Your task to perform on an android device: turn on sleep mode Image 0: 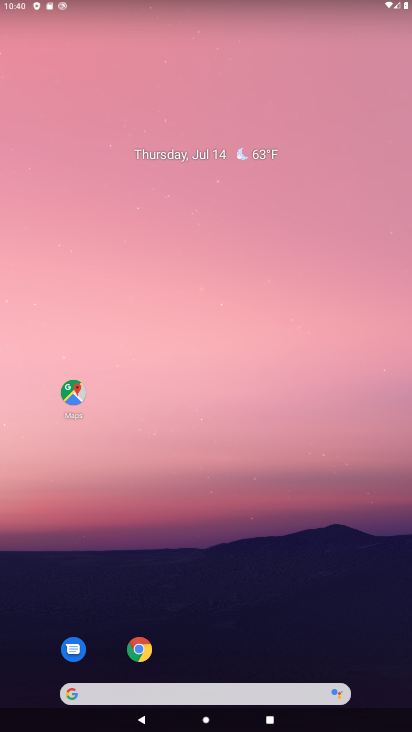
Step 0: drag from (223, 526) to (136, 0)
Your task to perform on an android device: turn on sleep mode Image 1: 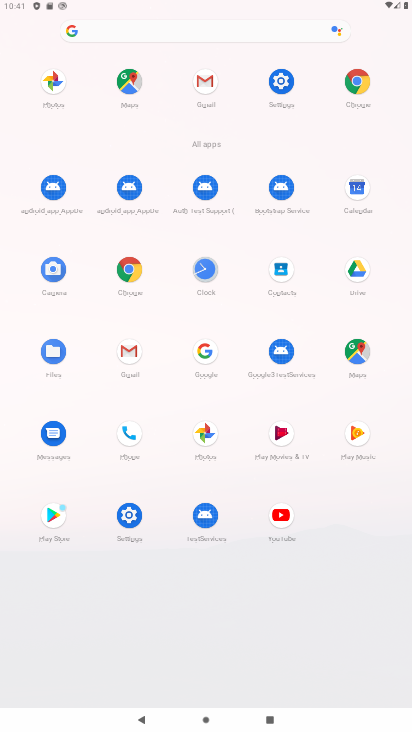
Step 1: click (283, 78)
Your task to perform on an android device: turn on sleep mode Image 2: 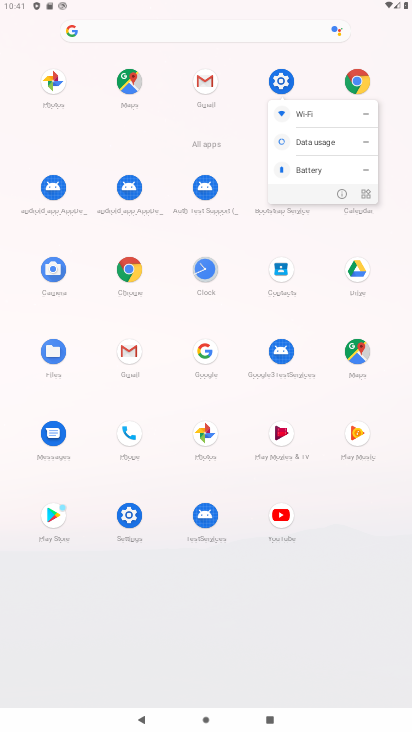
Step 2: click (270, 76)
Your task to perform on an android device: turn on sleep mode Image 3: 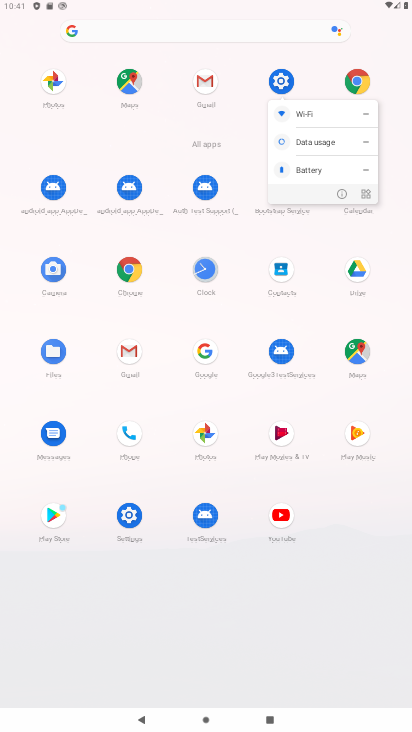
Step 3: click (272, 80)
Your task to perform on an android device: turn on sleep mode Image 4: 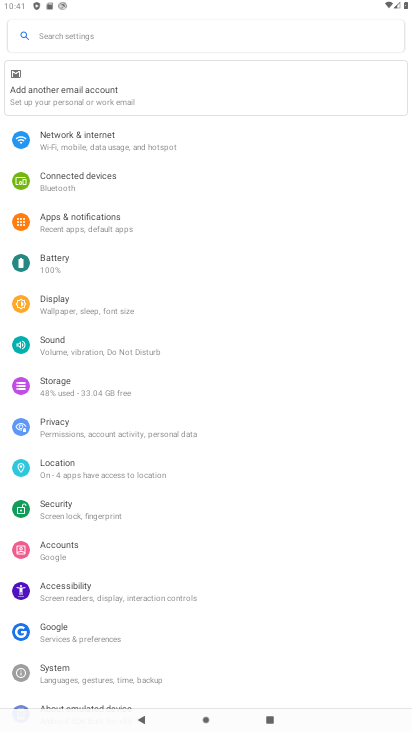
Step 4: click (58, 308)
Your task to perform on an android device: turn on sleep mode Image 5: 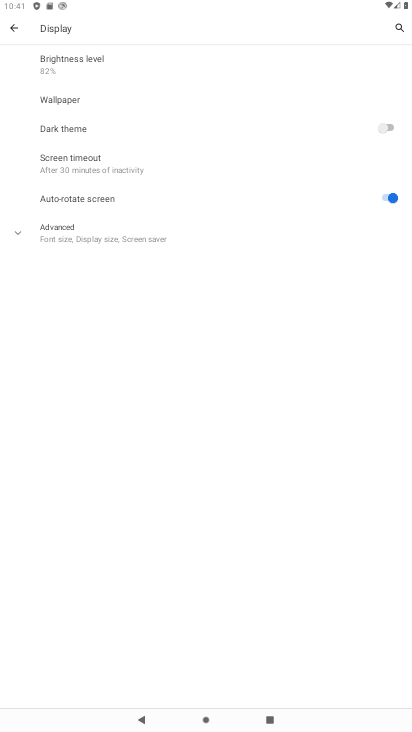
Step 5: click (57, 166)
Your task to perform on an android device: turn on sleep mode Image 6: 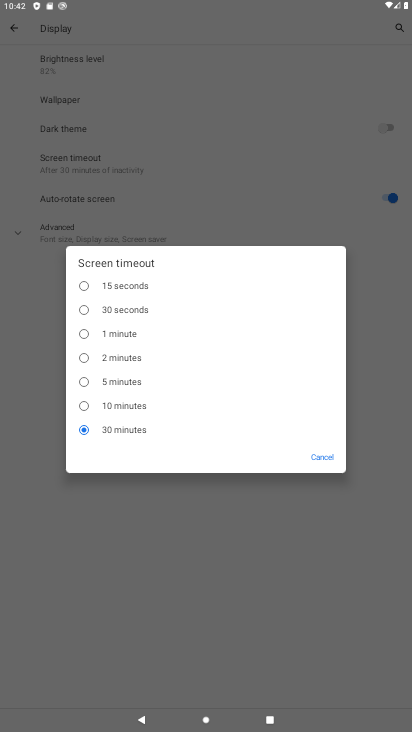
Step 6: task complete